Your task to perform on an android device: Check the weather Image 0: 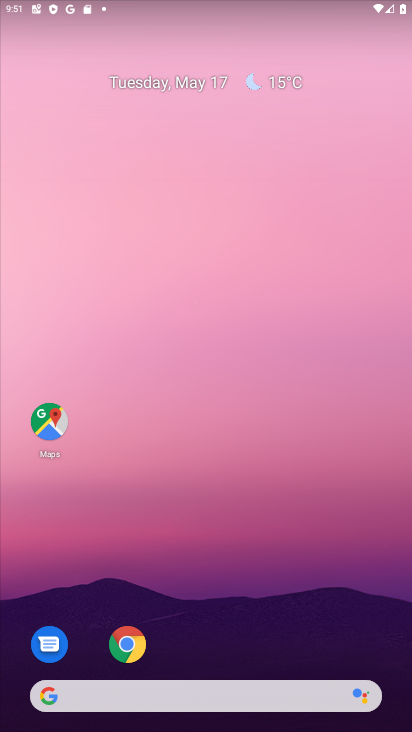
Step 0: click (274, 85)
Your task to perform on an android device: Check the weather Image 1: 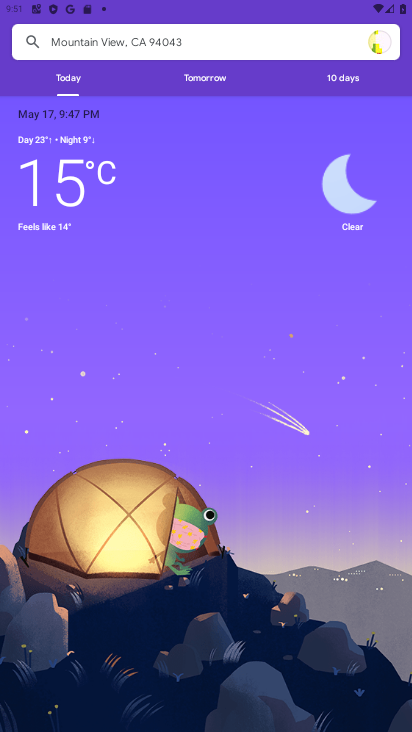
Step 1: task complete